Your task to perform on an android device: change alarm snooze length Image 0: 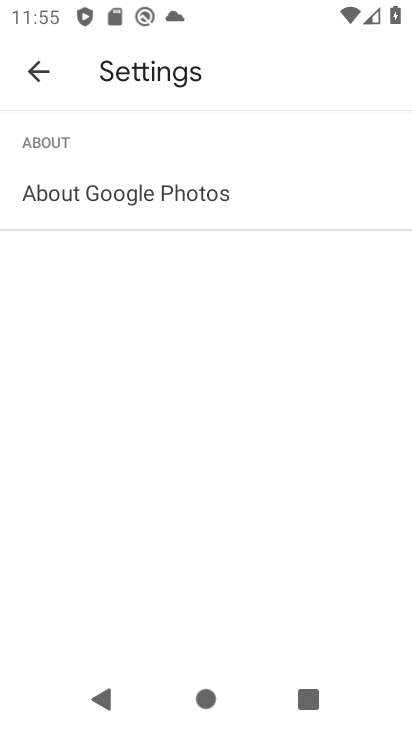
Step 0: press home button
Your task to perform on an android device: change alarm snooze length Image 1: 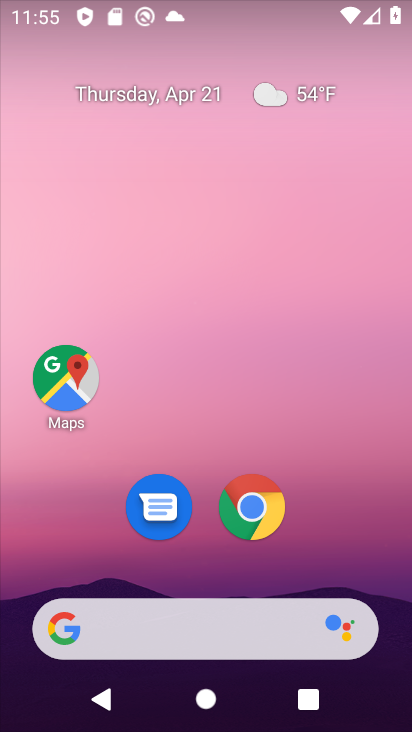
Step 1: drag from (180, 642) to (158, 57)
Your task to perform on an android device: change alarm snooze length Image 2: 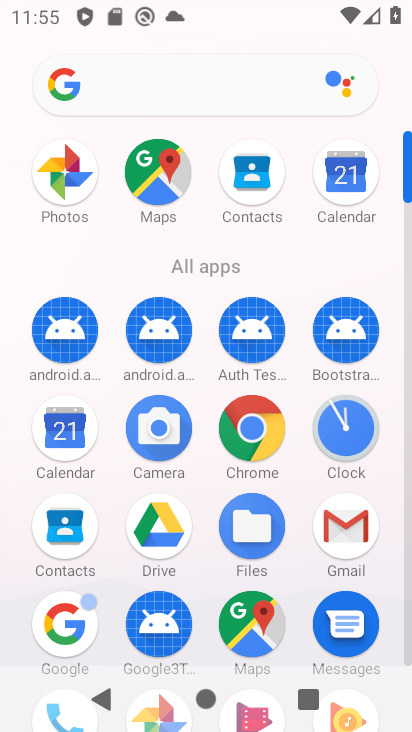
Step 2: click (351, 435)
Your task to perform on an android device: change alarm snooze length Image 3: 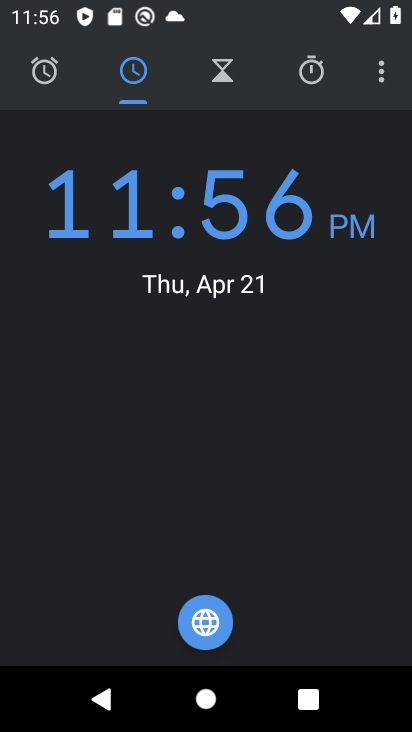
Step 3: click (384, 97)
Your task to perform on an android device: change alarm snooze length Image 4: 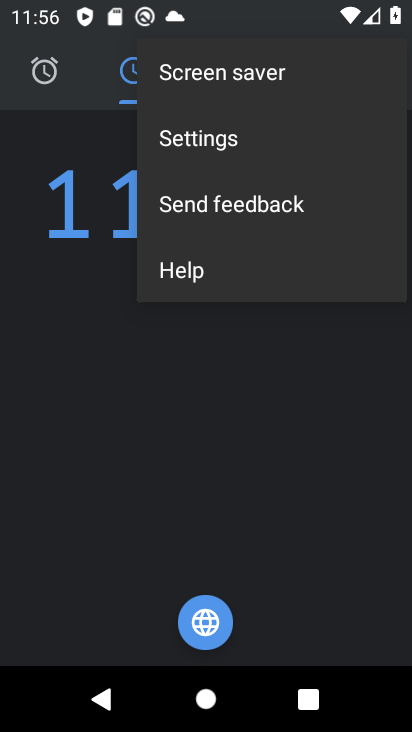
Step 4: click (214, 147)
Your task to perform on an android device: change alarm snooze length Image 5: 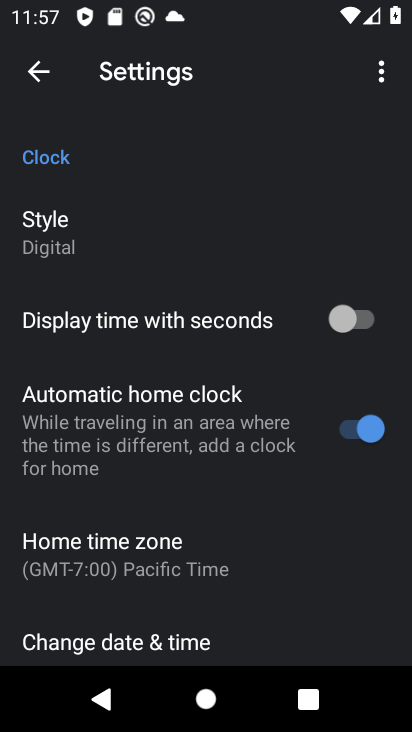
Step 5: drag from (234, 409) to (219, 83)
Your task to perform on an android device: change alarm snooze length Image 6: 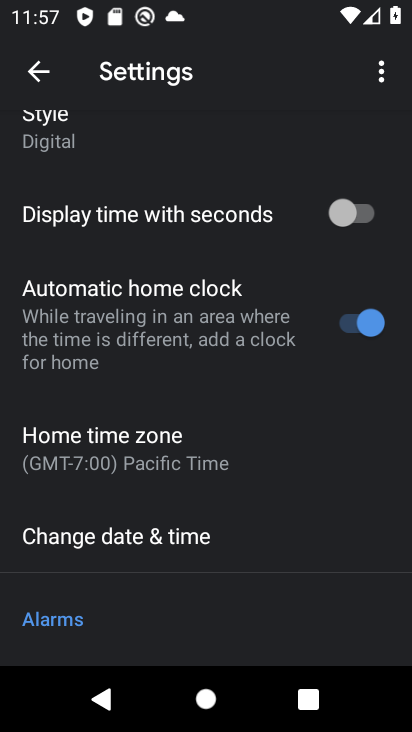
Step 6: drag from (133, 536) to (122, 104)
Your task to perform on an android device: change alarm snooze length Image 7: 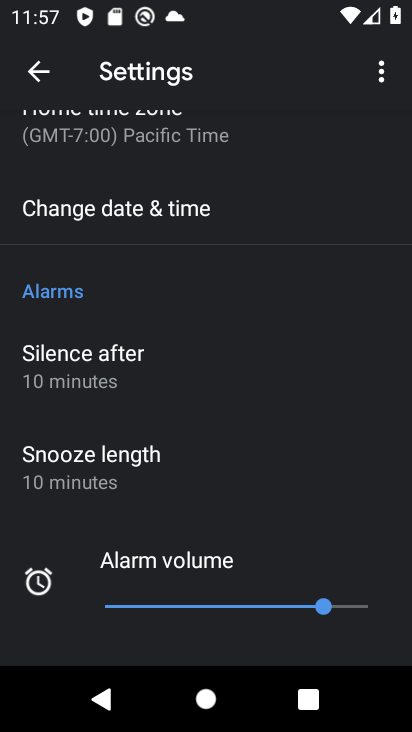
Step 7: click (169, 457)
Your task to perform on an android device: change alarm snooze length Image 8: 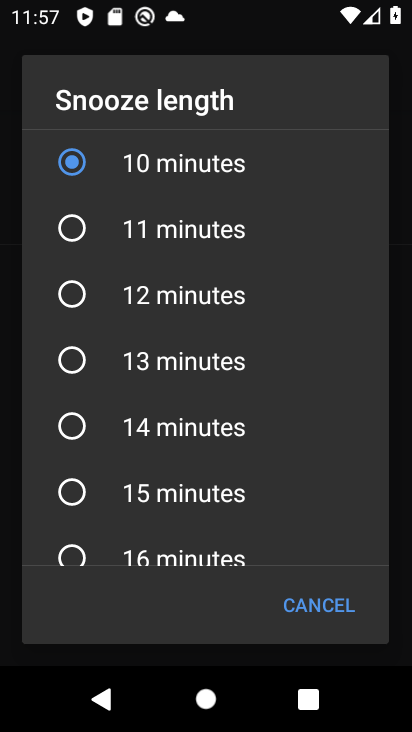
Step 8: click (170, 444)
Your task to perform on an android device: change alarm snooze length Image 9: 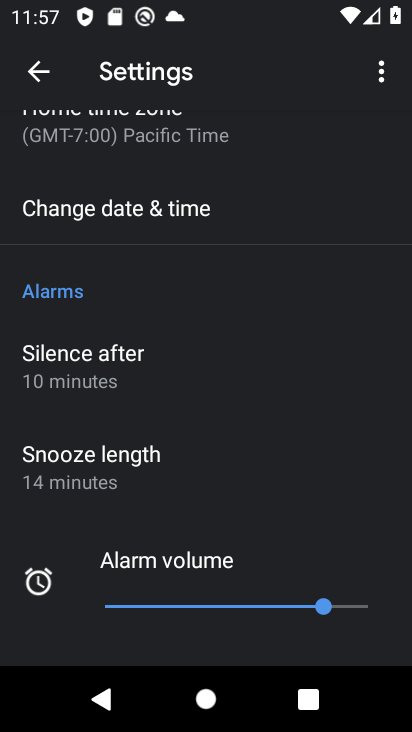
Step 9: task complete